Your task to perform on an android device: toggle priority inbox in the gmail app Image 0: 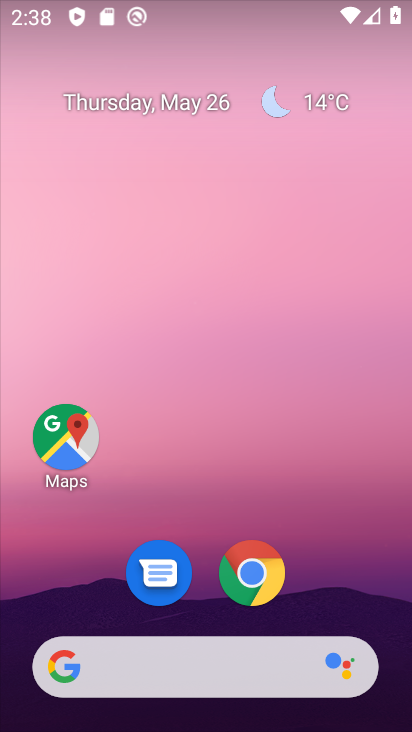
Step 0: drag from (356, 568) to (241, 0)
Your task to perform on an android device: toggle priority inbox in the gmail app Image 1: 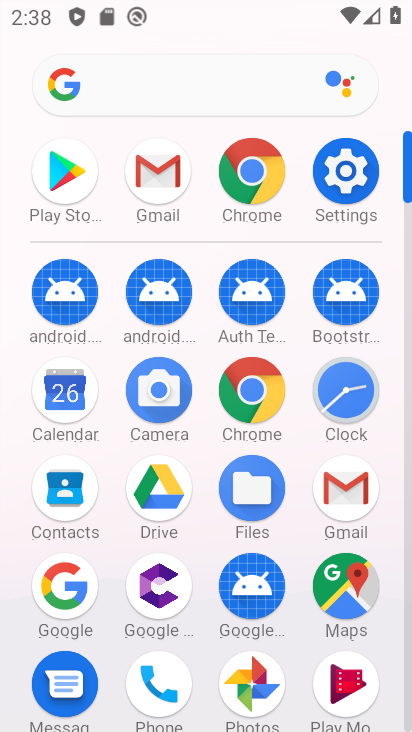
Step 1: drag from (17, 613) to (15, 259)
Your task to perform on an android device: toggle priority inbox in the gmail app Image 2: 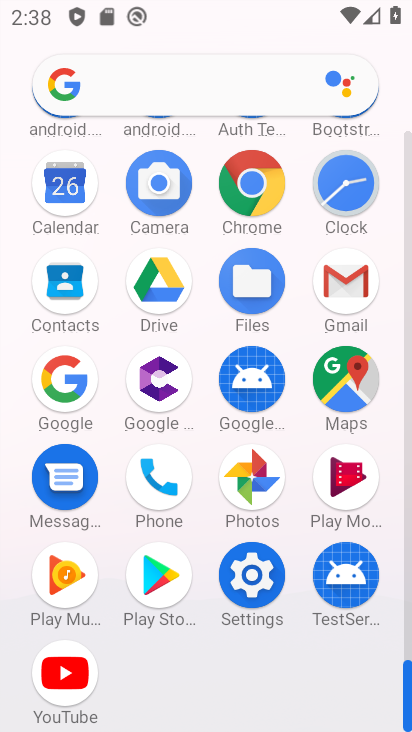
Step 2: click (339, 279)
Your task to perform on an android device: toggle priority inbox in the gmail app Image 3: 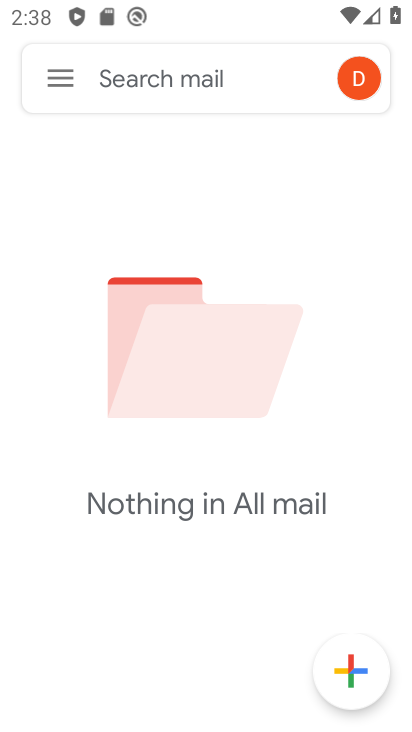
Step 3: click (47, 74)
Your task to perform on an android device: toggle priority inbox in the gmail app Image 4: 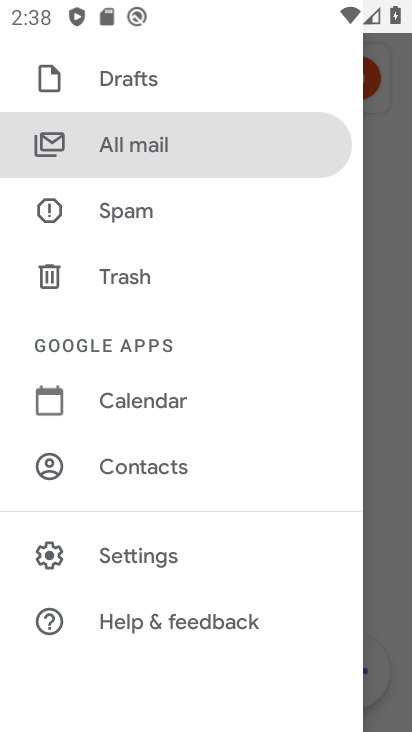
Step 4: click (145, 552)
Your task to perform on an android device: toggle priority inbox in the gmail app Image 5: 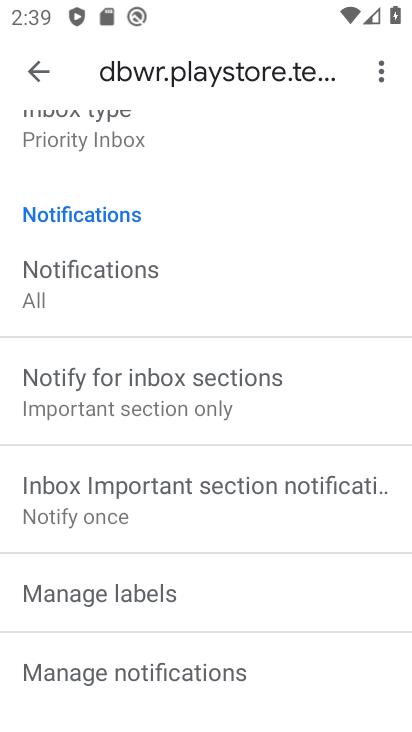
Step 5: task complete